Your task to perform on an android device: Open Youtube and go to the subscriptions tab Image 0: 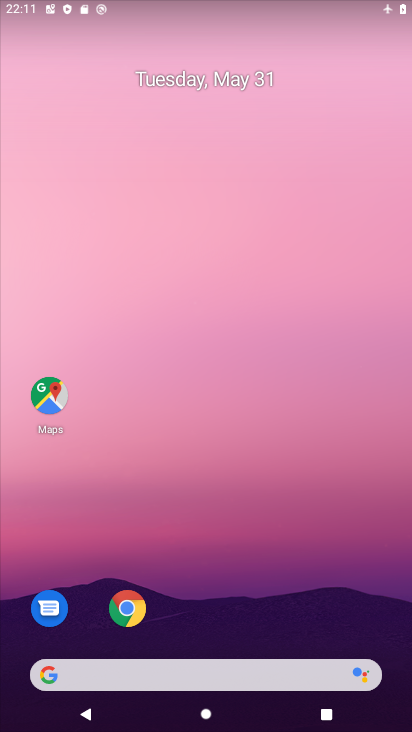
Step 0: drag from (213, 641) to (250, 81)
Your task to perform on an android device: Open Youtube and go to the subscriptions tab Image 1: 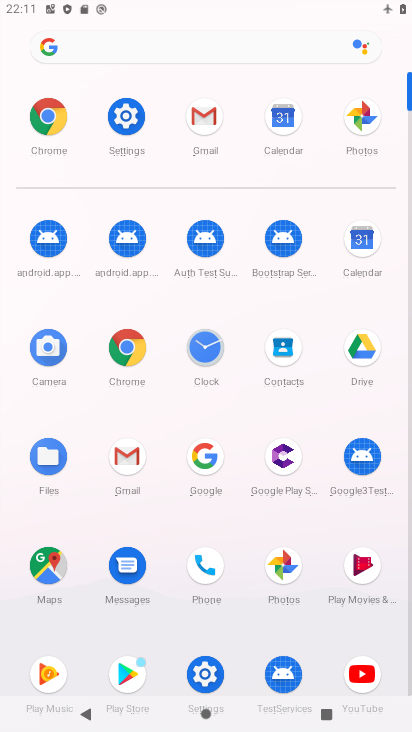
Step 1: click (356, 675)
Your task to perform on an android device: Open Youtube and go to the subscriptions tab Image 2: 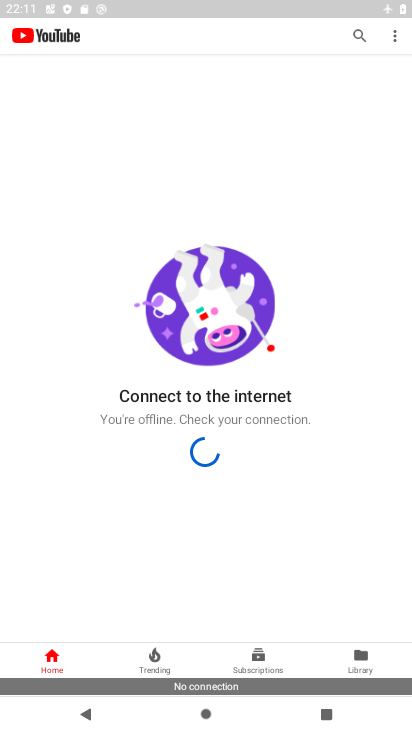
Step 2: click (397, 38)
Your task to perform on an android device: Open Youtube and go to the subscriptions tab Image 3: 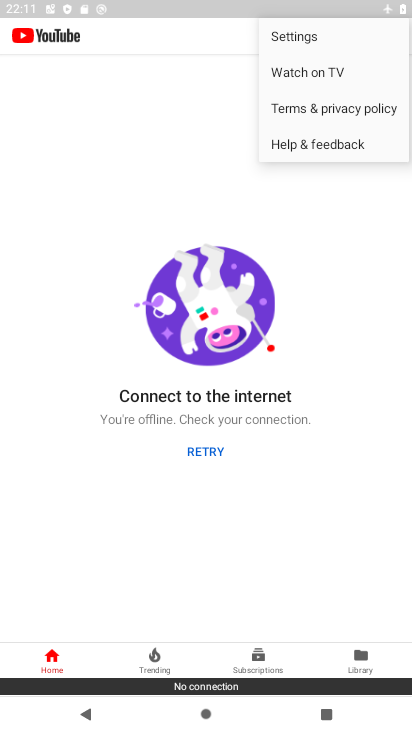
Step 3: click (251, 650)
Your task to perform on an android device: Open Youtube and go to the subscriptions tab Image 4: 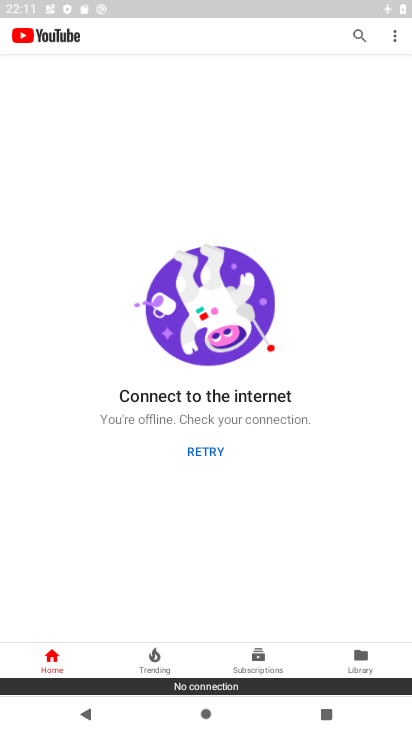
Step 4: click (259, 660)
Your task to perform on an android device: Open Youtube and go to the subscriptions tab Image 5: 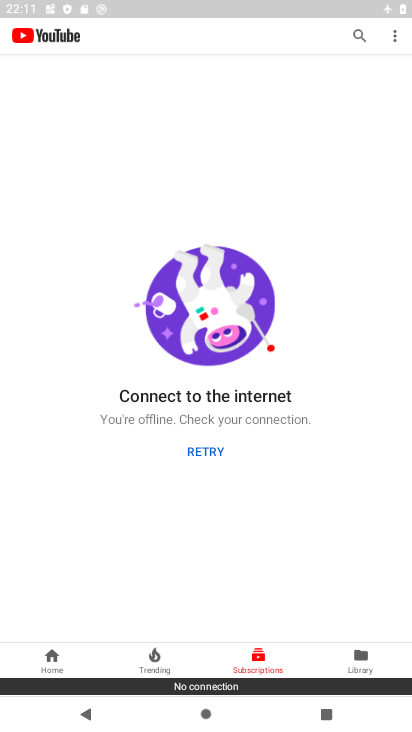
Step 5: task complete